Your task to perform on an android device: turn on showing notifications on the lock screen Image 0: 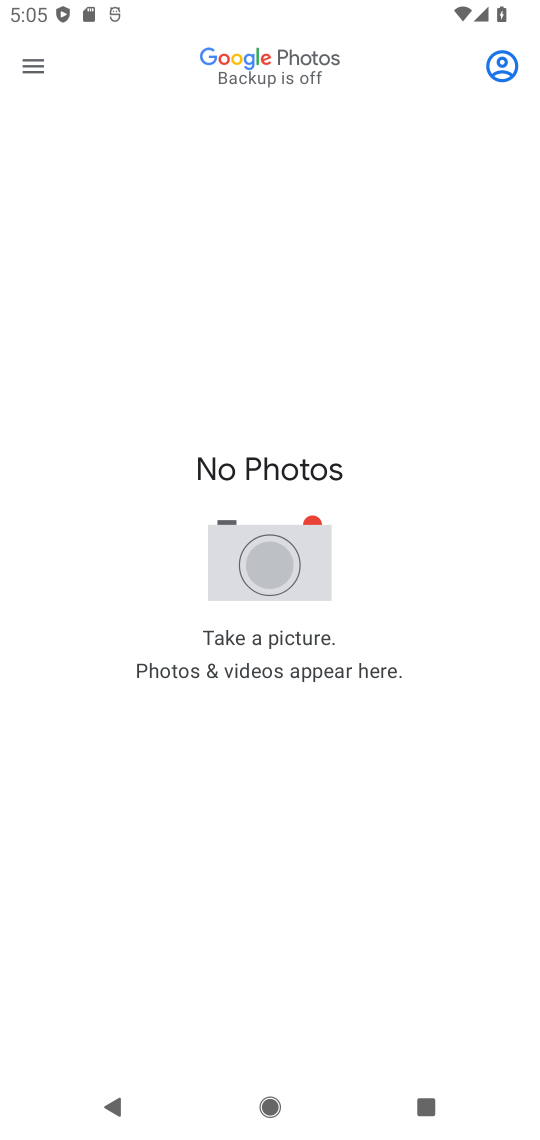
Step 0: press home button
Your task to perform on an android device: turn on showing notifications on the lock screen Image 1: 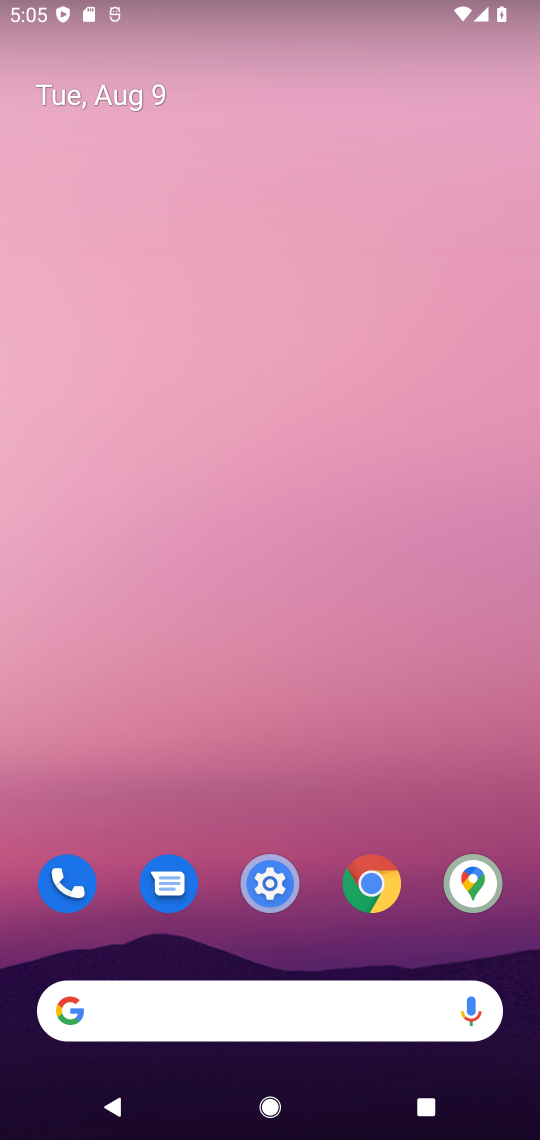
Step 1: click (283, 907)
Your task to perform on an android device: turn on showing notifications on the lock screen Image 2: 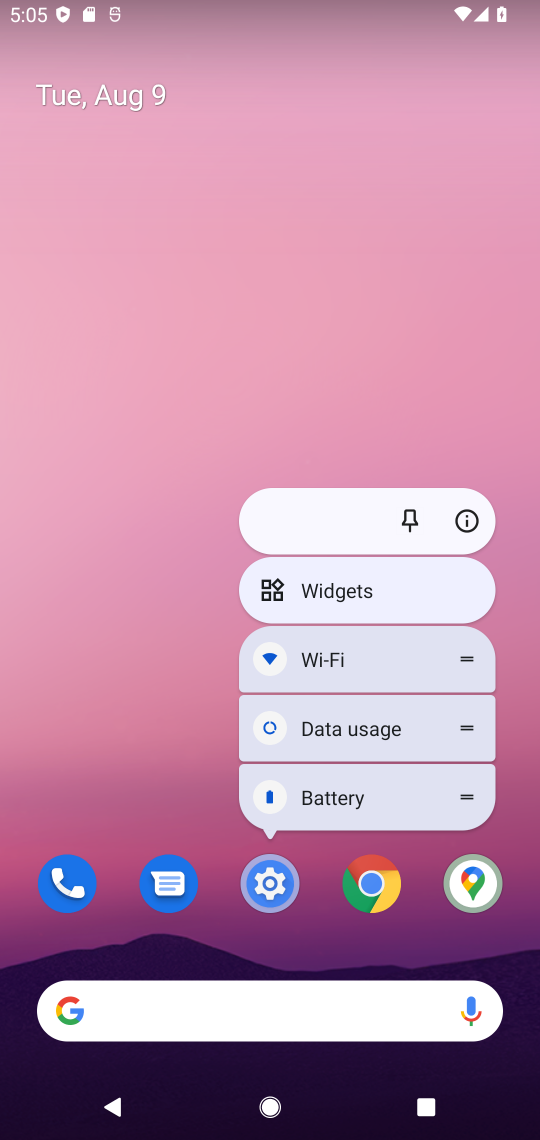
Step 2: click (272, 894)
Your task to perform on an android device: turn on showing notifications on the lock screen Image 3: 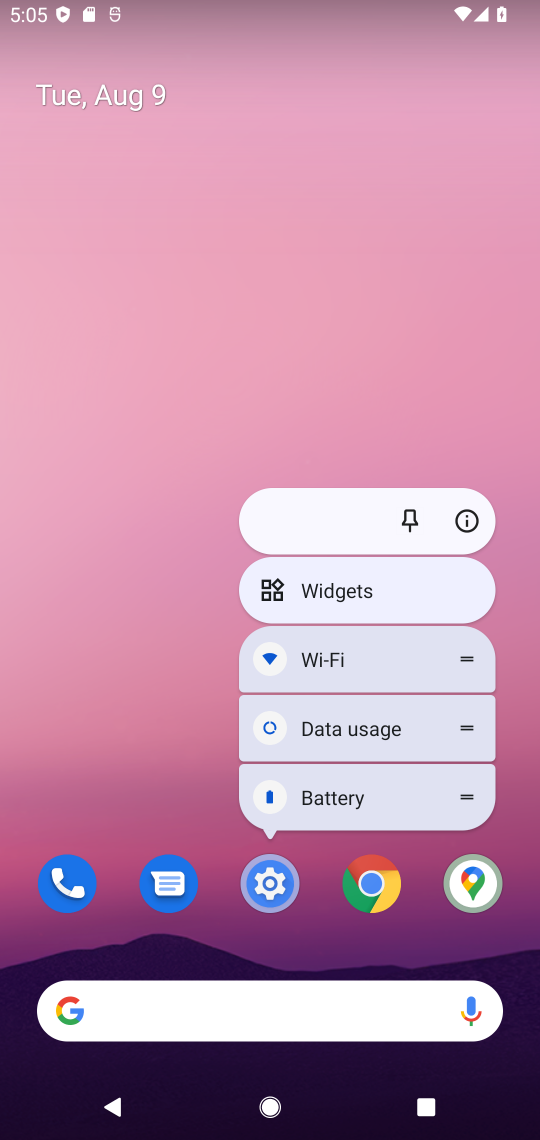
Step 3: click (268, 885)
Your task to perform on an android device: turn on showing notifications on the lock screen Image 4: 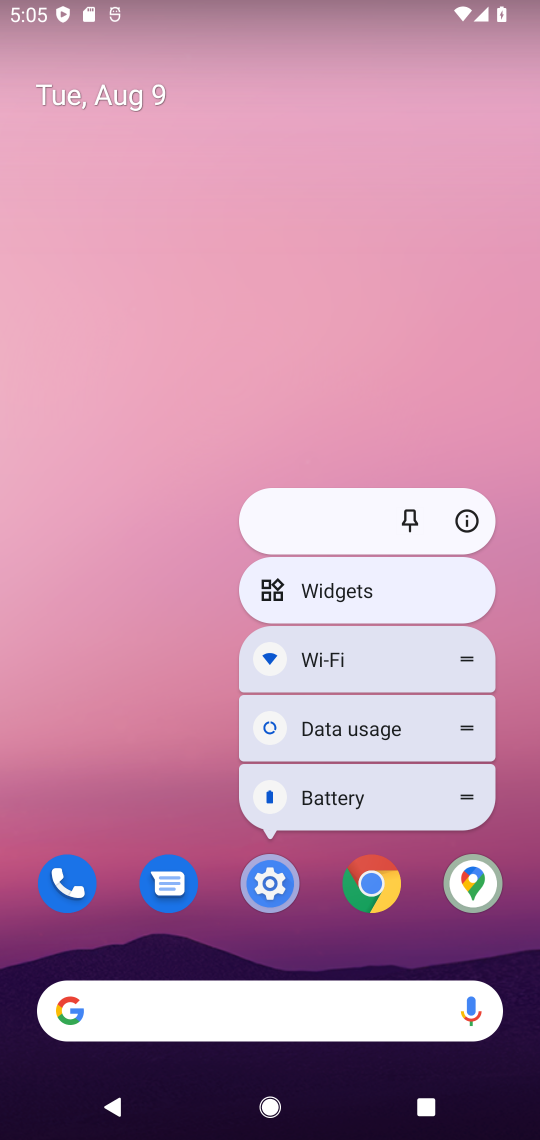
Step 4: click (268, 884)
Your task to perform on an android device: turn on showing notifications on the lock screen Image 5: 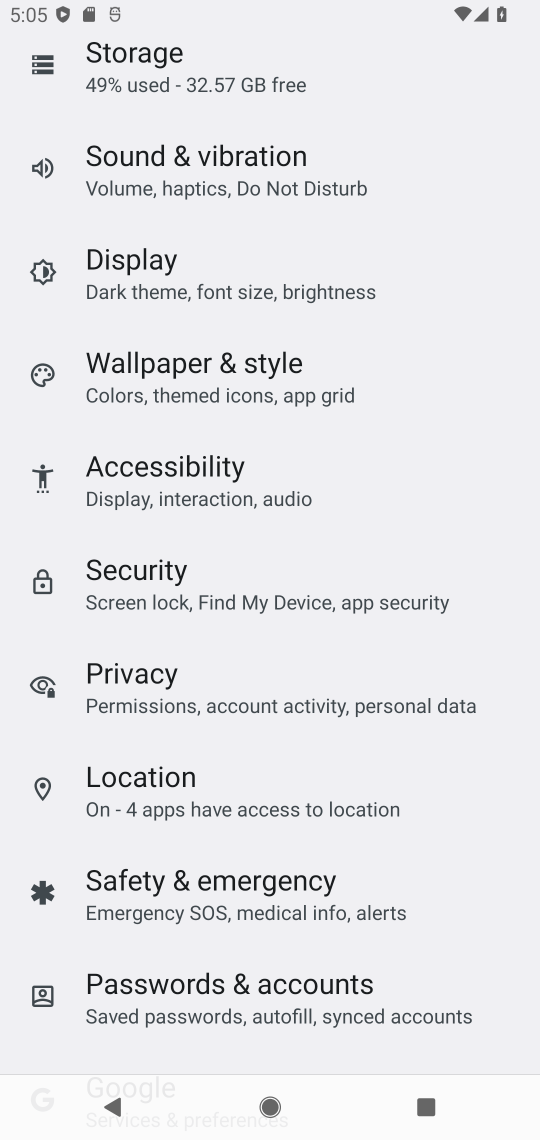
Step 5: drag from (286, 359) to (299, 756)
Your task to perform on an android device: turn on showing notifications on the lock screen Image 6: 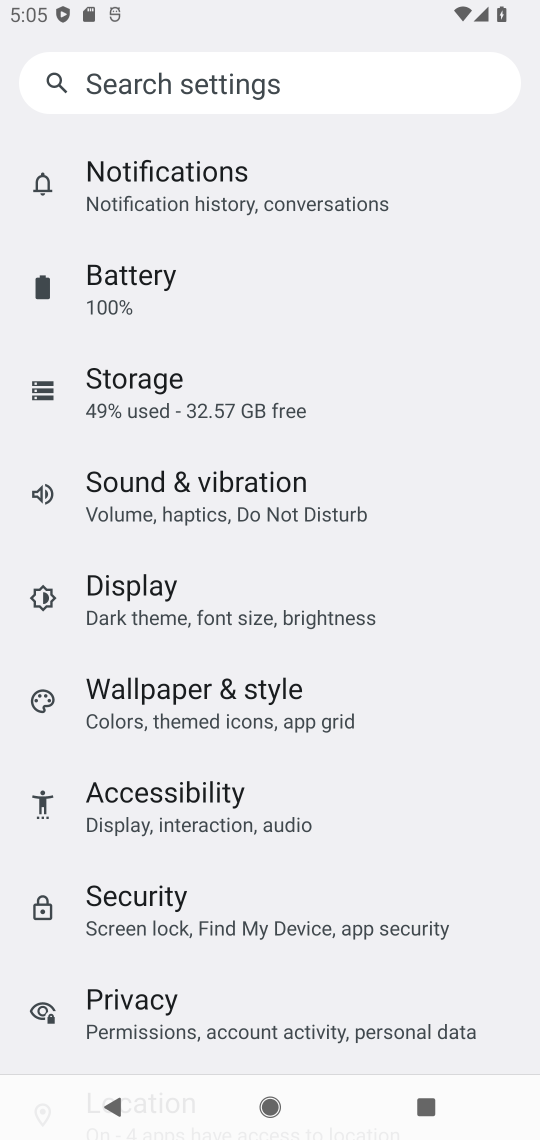
Step 6: click (248, 204)
Your task to perform on an android device: turn on showing notifications on the lock screen Image 7: 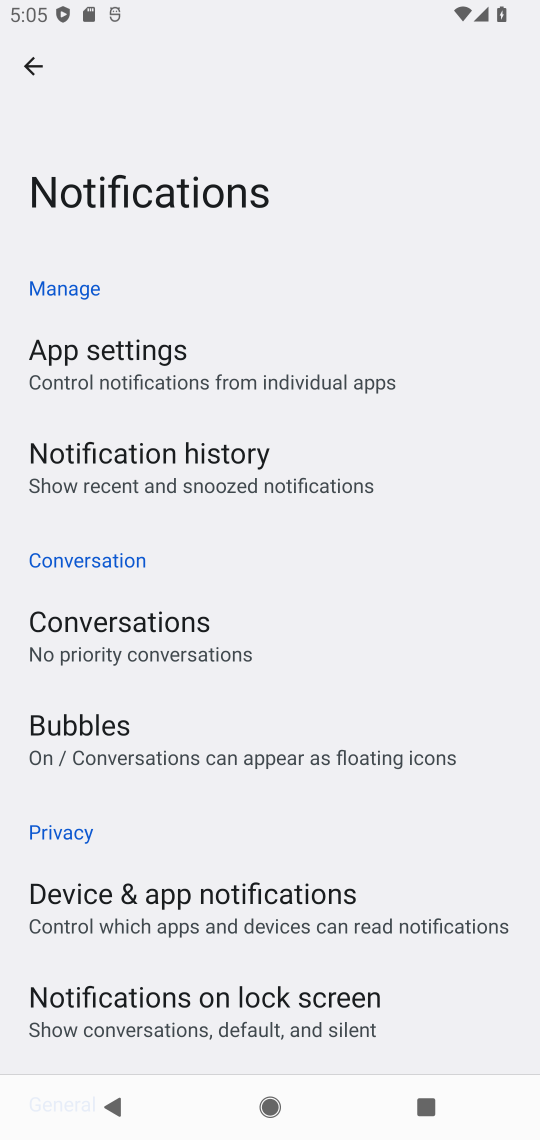
Step 7: click (318, 982)
Your task to perform on an android device: turn on showing notifications on the lock screen Image 8: 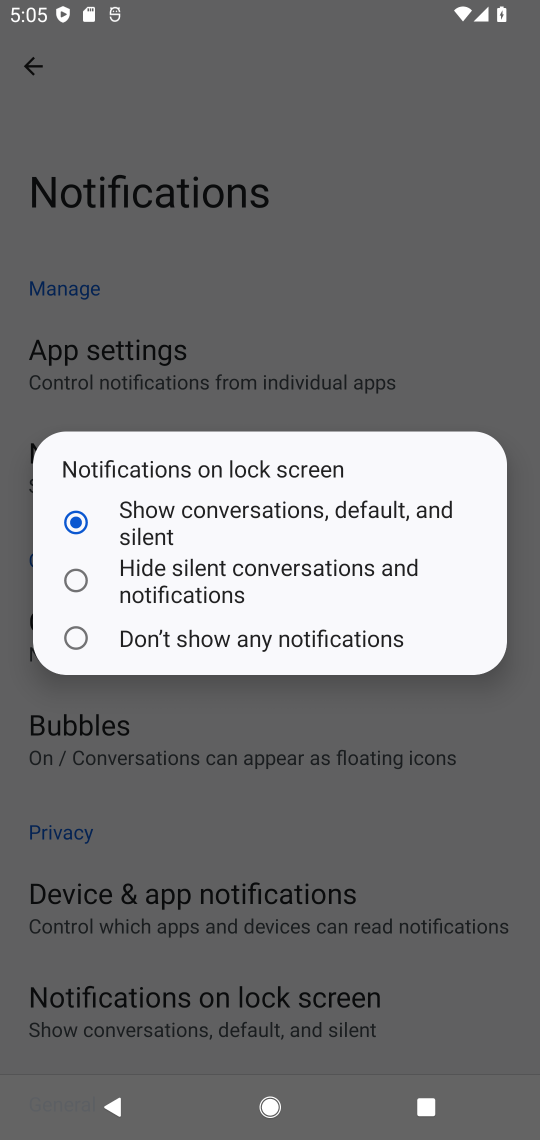
Step 8: task complete